Your task to perform on an android device: install app "Google Maps" Image 0: 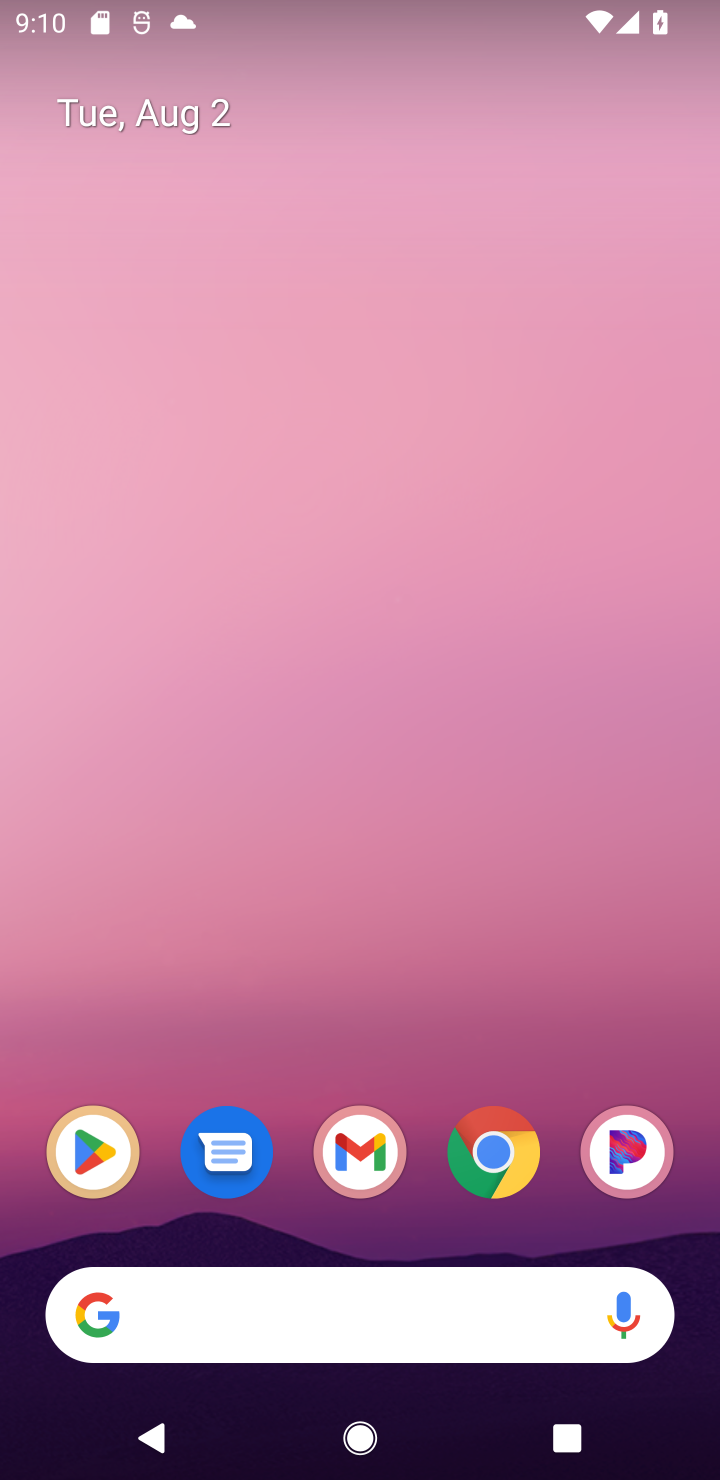
Step 0: click (98, 1189)
Your task to perform on an android device: install app "Google Maps" Image 1: 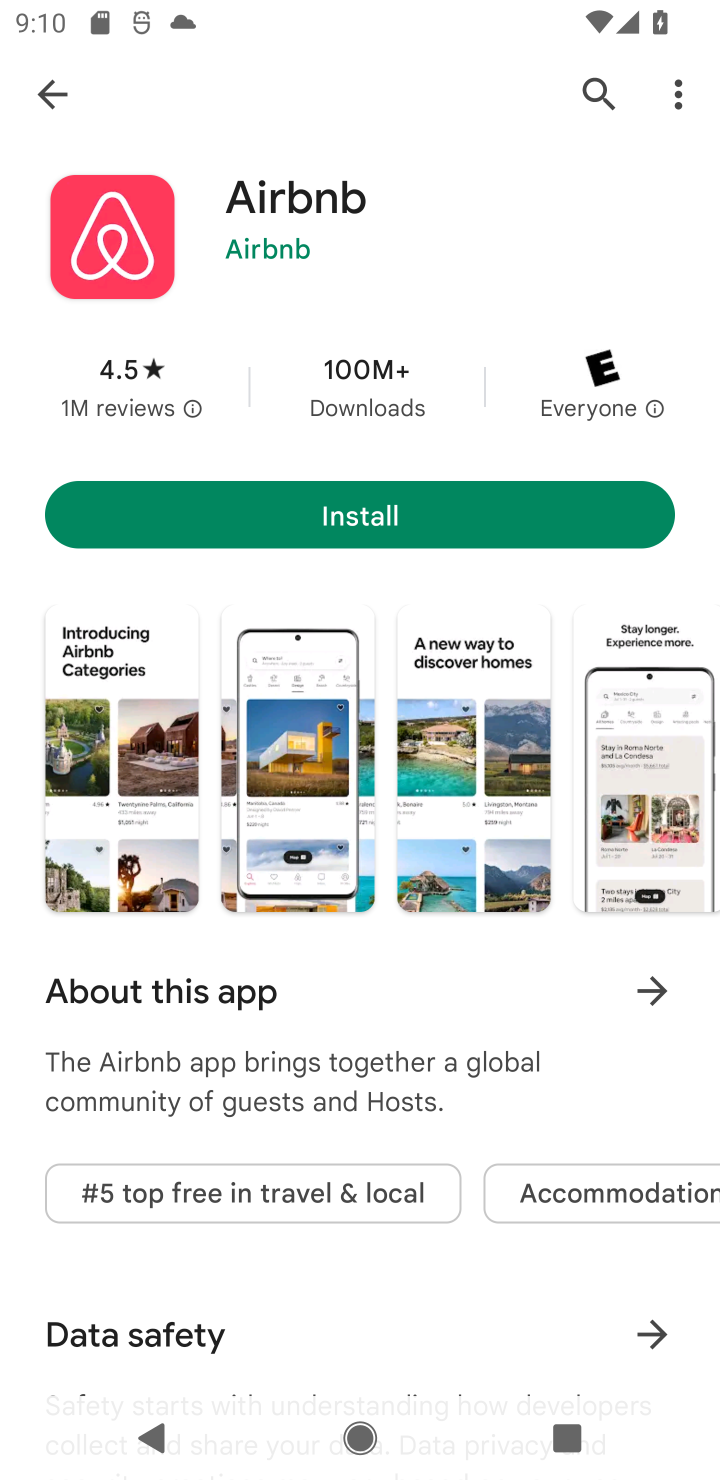
Step 1: click (65, 73)
Your task to perform on an android device: install app "Google Maps" Image 2: 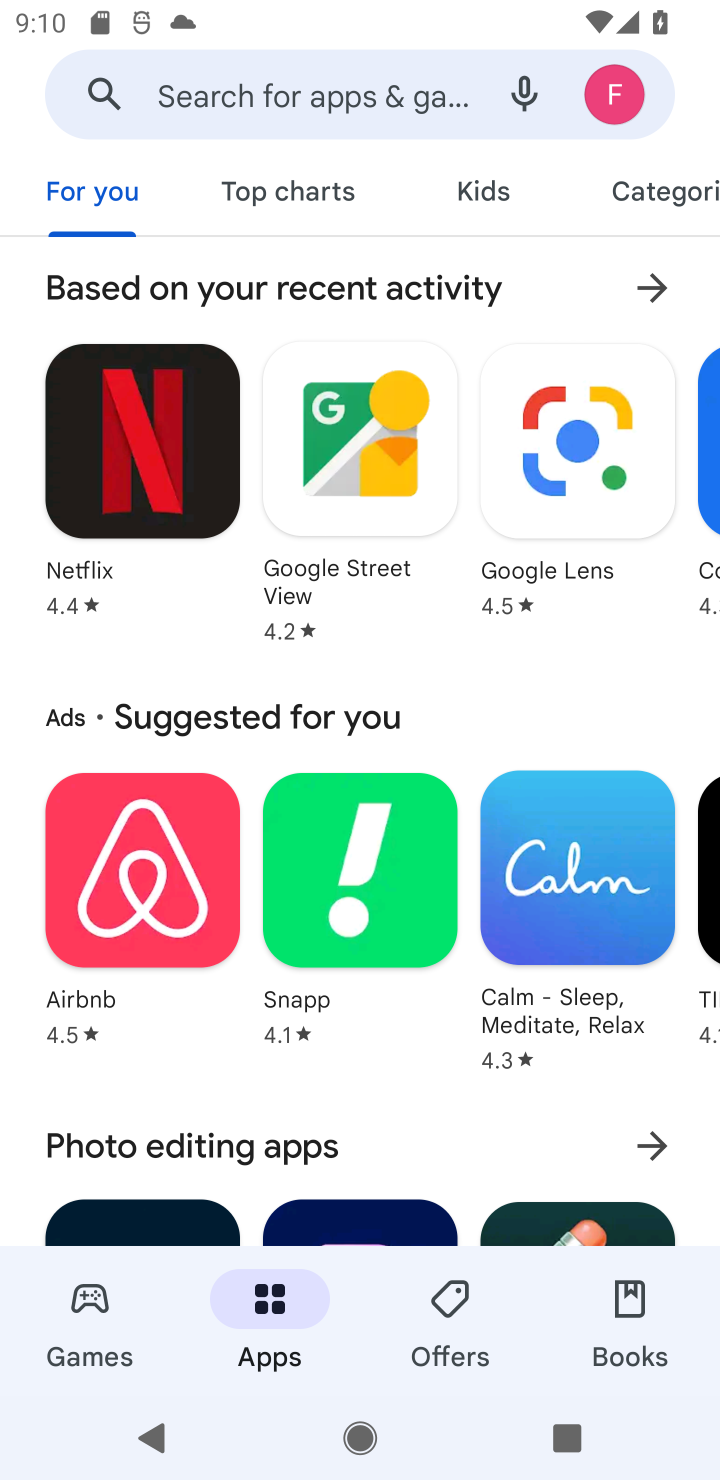
Step 2: click (228, 86)
Your task to perform on an android device: install app "Google Maps" Image 3: 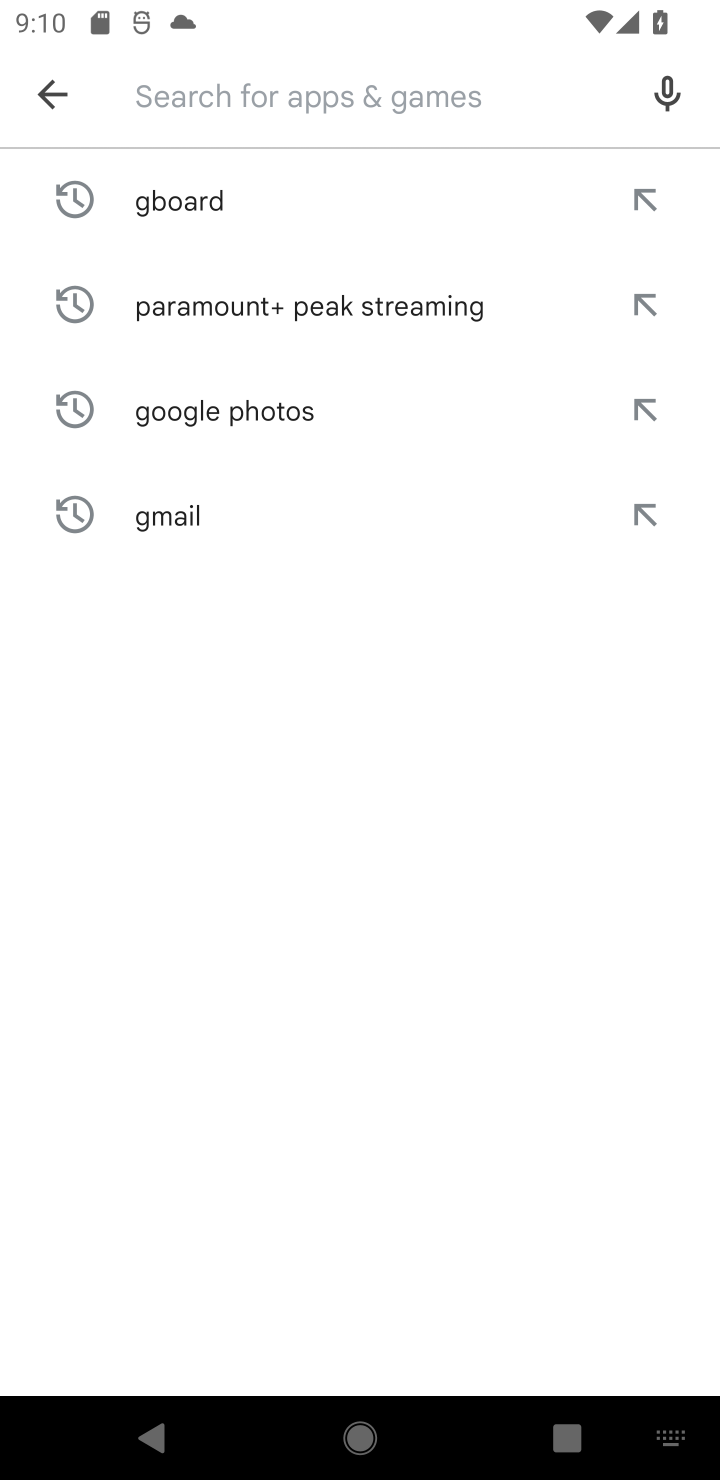
Step 3: type "Google Maps"
Your task to perform on an android device: install app "Google Maps" Image 4: 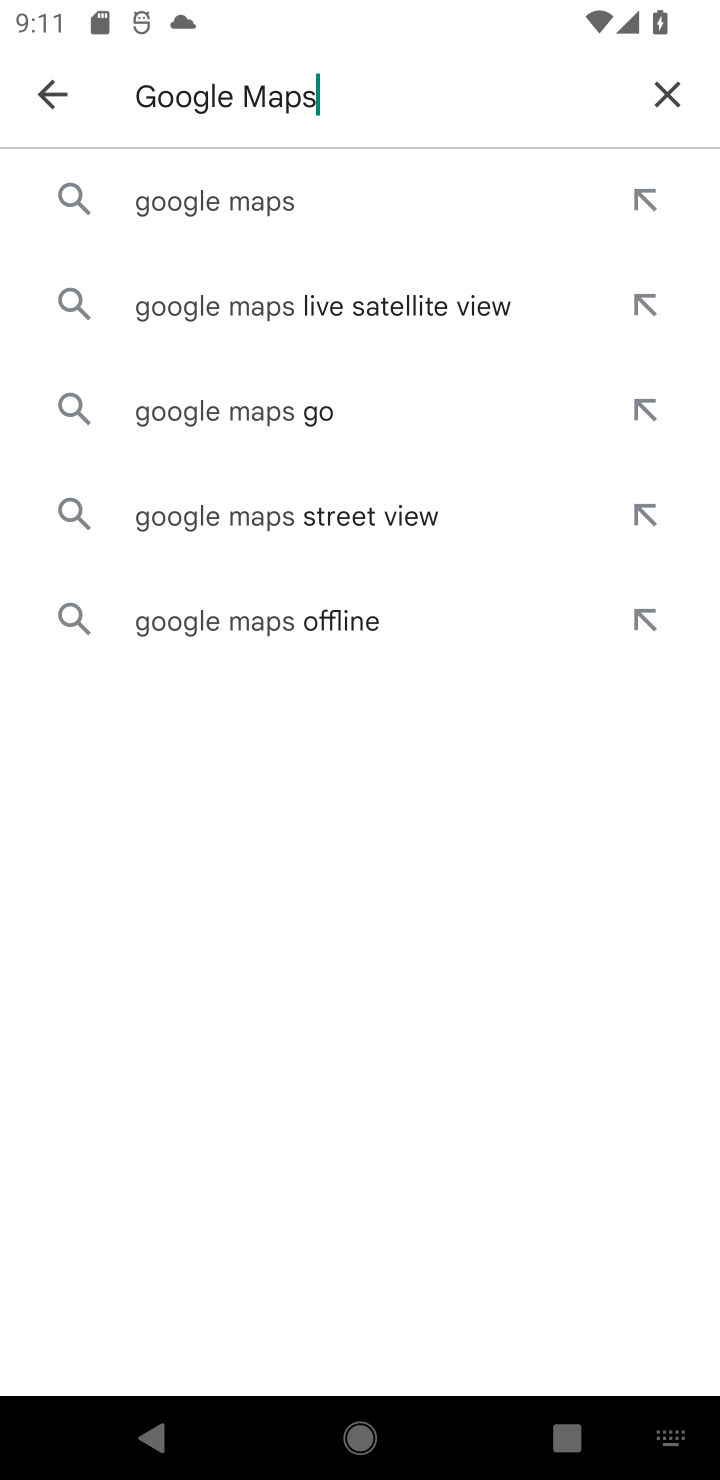
Step 4: click (188, 185)
Your task to perform on an android device: install app "Google Maps" Image 5: 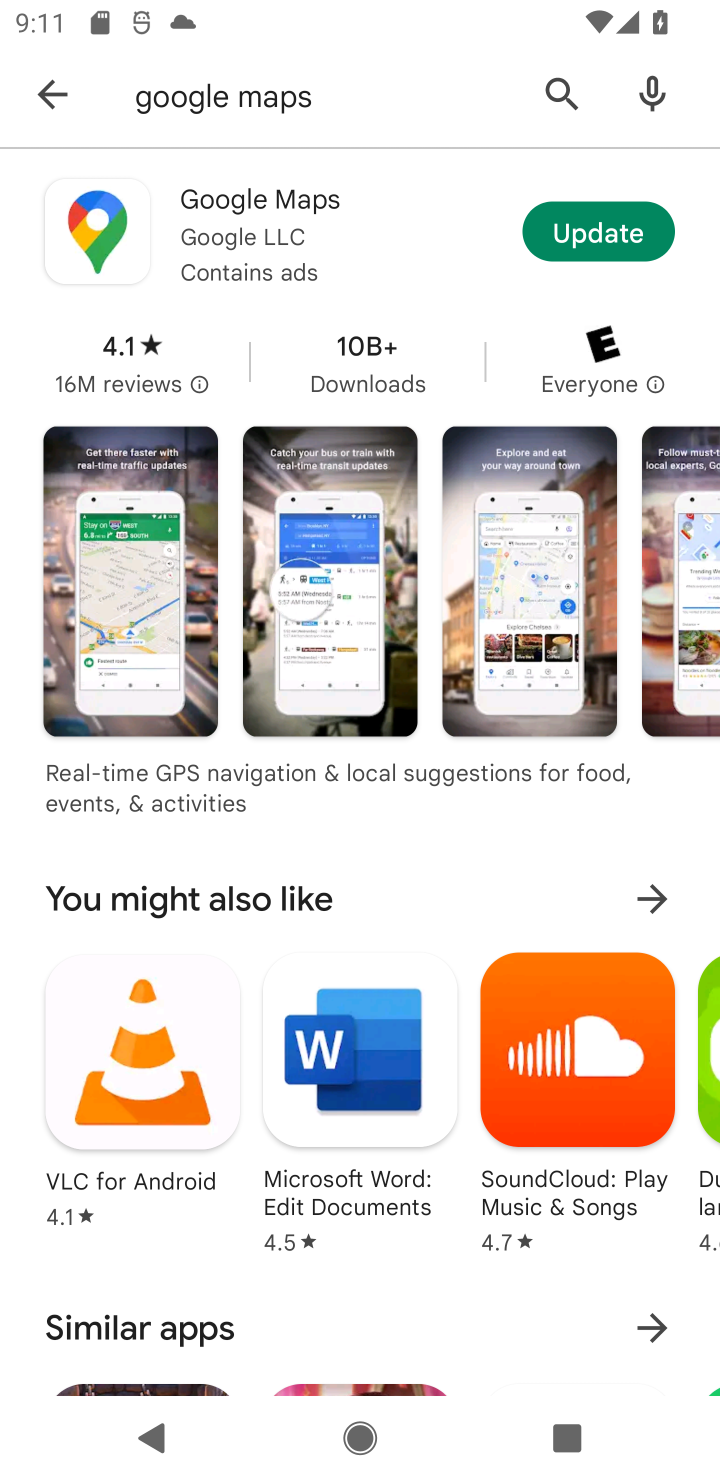
Step 5: task complete